Your task to perform on an android device: Do I have any events this weekend? Image 0: 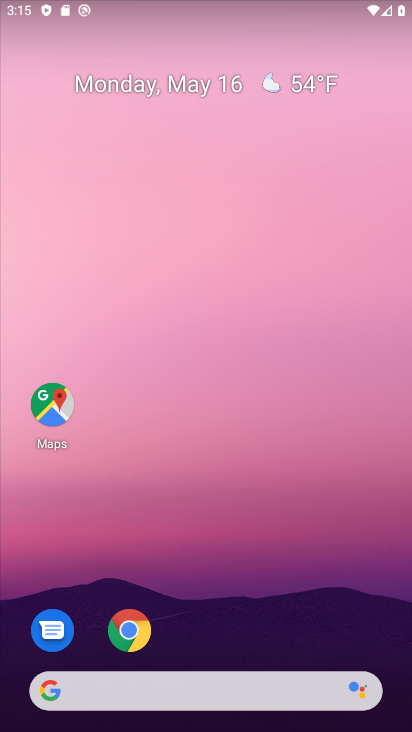
Step 0: drag from (260, 636) to (188, 273)
Your task to perform on an android device: Do I have any events this weekend? Image 1: 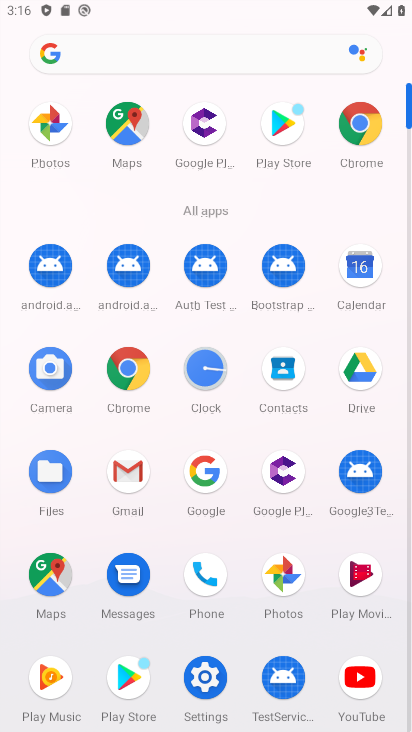
Step 1: click (357, 276)
Your task to perform on an android device: Do I have any events this weekend? Image 2: 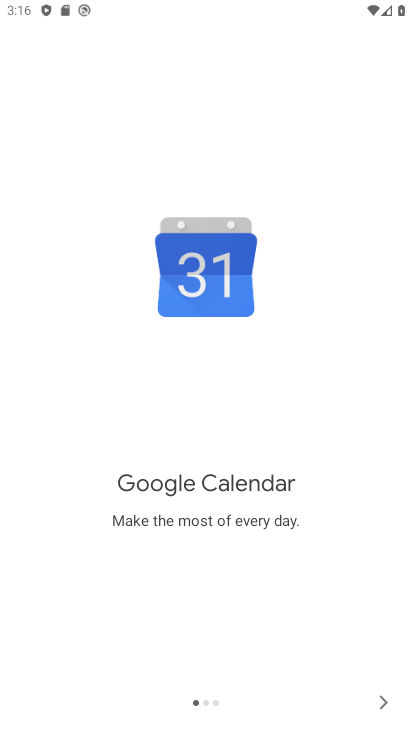
Step 2: click (385, 703)
Your task to perform on an android device: Do I have any events this weekend? Image 3: 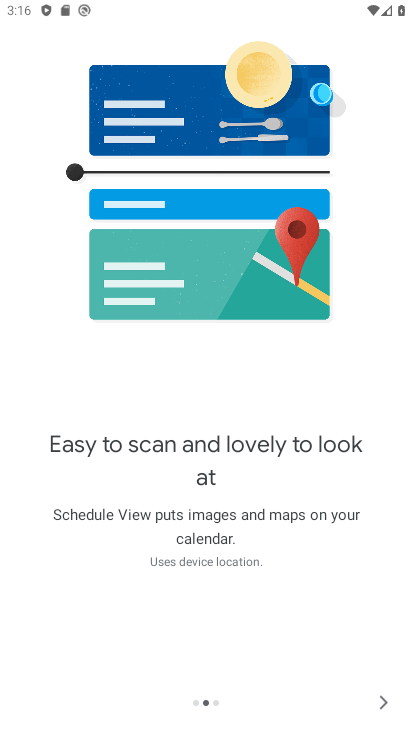
Step 3: click (385, 703)
Your task to perform on an android device: Do I have any events this weekend? Image 4: 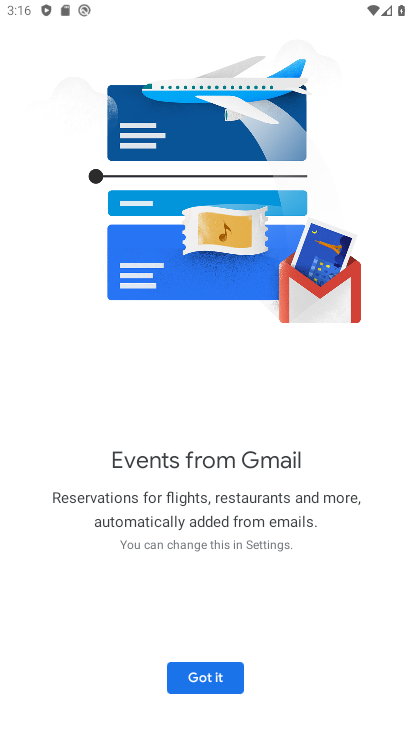
Step 4: click (193, 673)
Your task to perform on an android device: Do I have any events this weekend? Image 5: 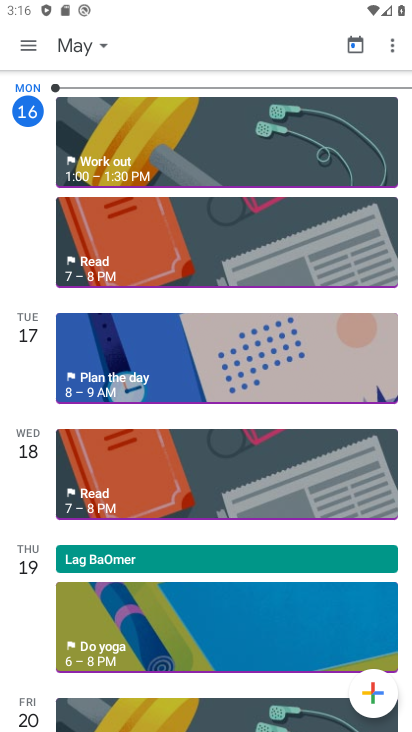
Step 5: click (24, 47)
Your task to perform on an android device: Do I have any events this weekend? Image 6: 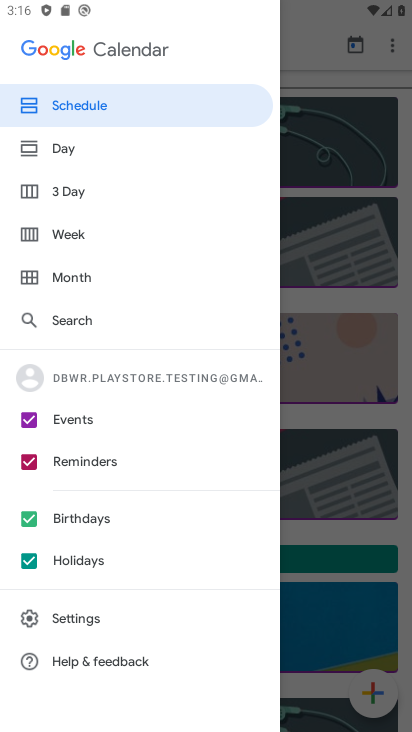
Step 6: click (79, 191)
Your task to perform on an android device: Do I have any events this weekend? Image 7: 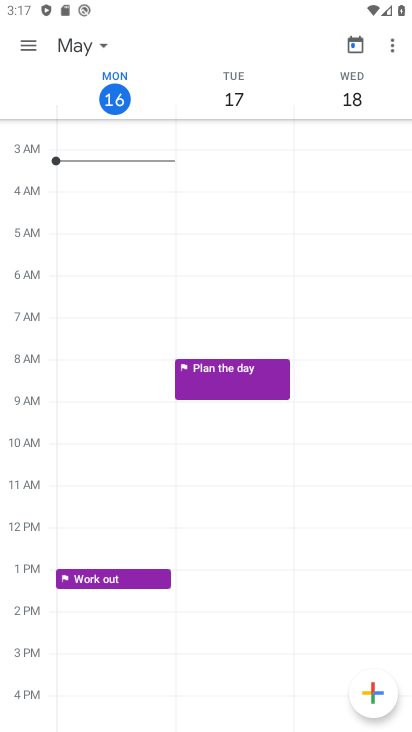
Step 7: click (99, 50)
Your task to perform on an android device: Do I have any events this weekend? Image 8: 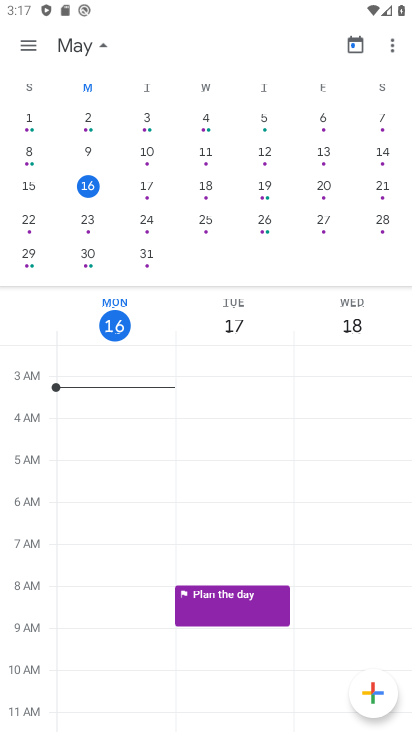
Step 8: click (381, 184)
Your task to perform on an android device: Do I have any events this weekend? Image 9: 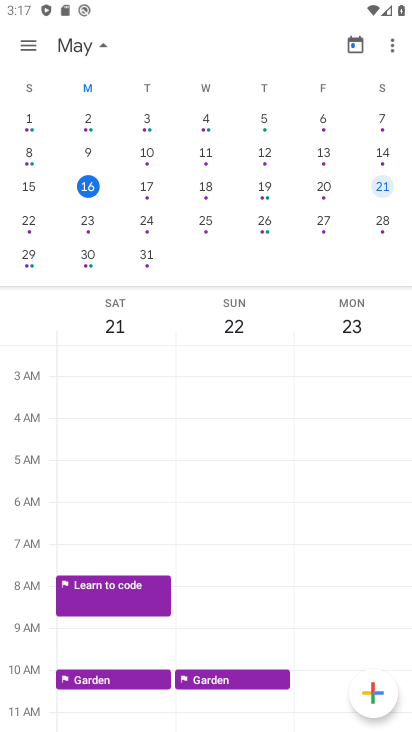
Step 9: task complete